Your task to perform on an android device: What's the news in Venezuela? Image 0: 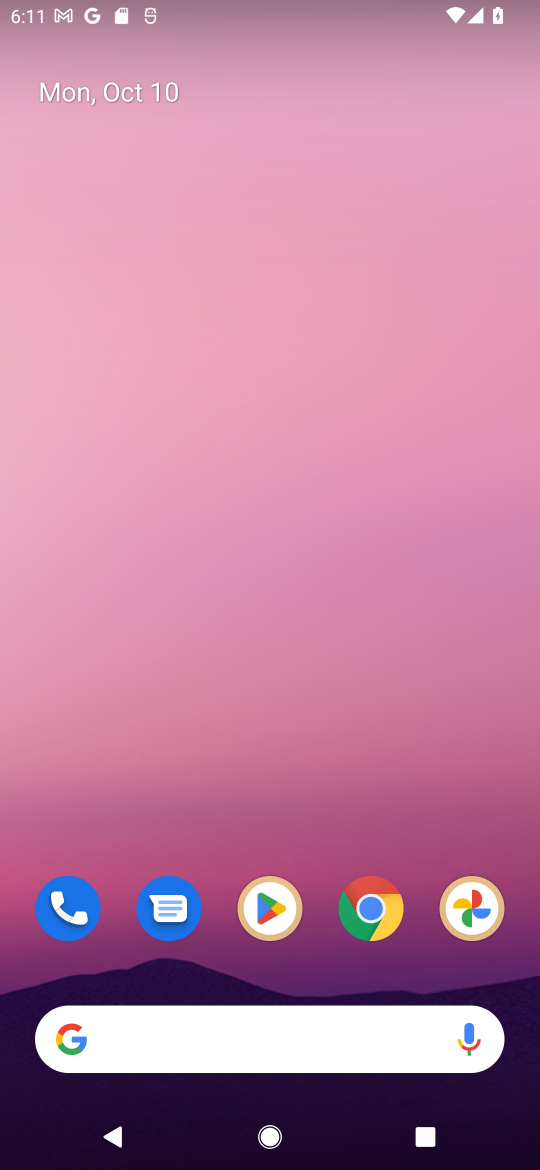
Step 0: drag from (222, 966) to (255, 169)
Your task to perform on an android device: What's the news in Venezuela? Image 1: 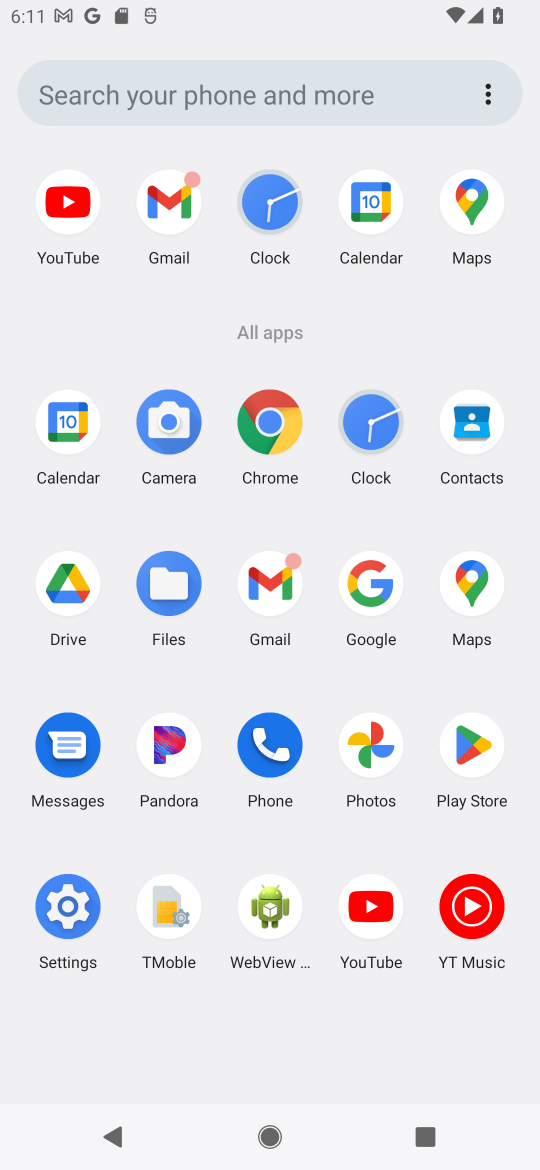
Step 1: click (267, 418)
Your task to perform on an android device: What's the news in Venezuela? Image 2: 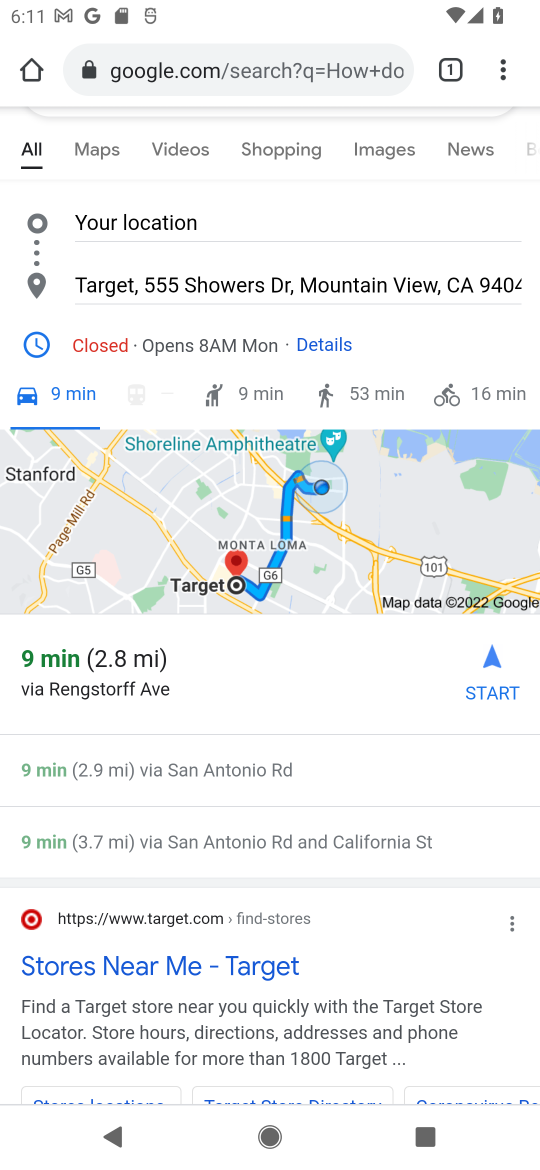
Step 2: click (290, 65)
Your task to perform on an android device: What's the news in Venezuela? Image 3: 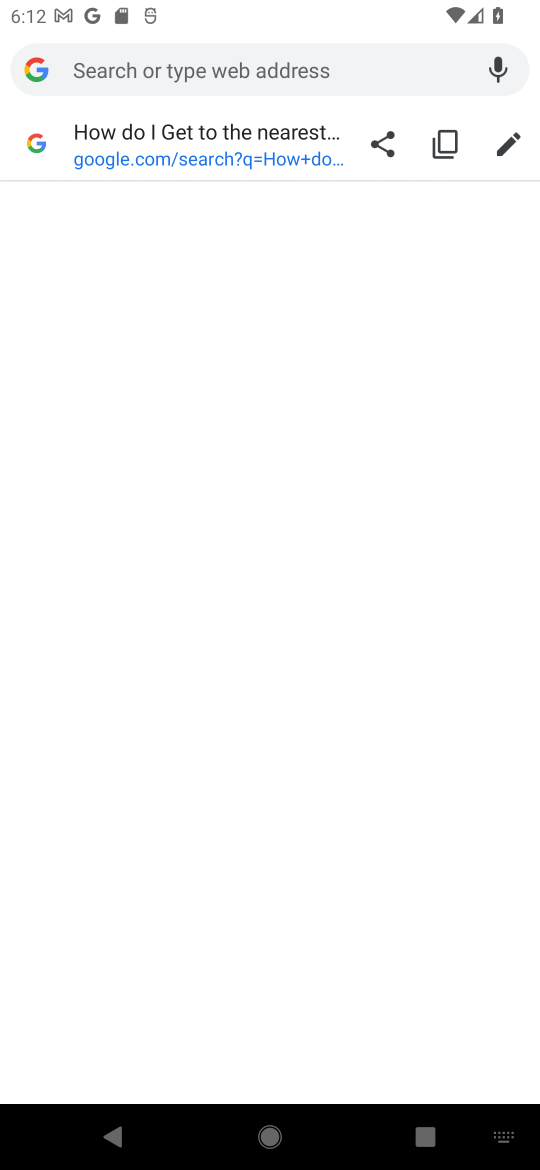
Step 3: type "What's the news in Veneuela?"
Your task to perform on an android device: What's the news in Venezuela? Image 4: 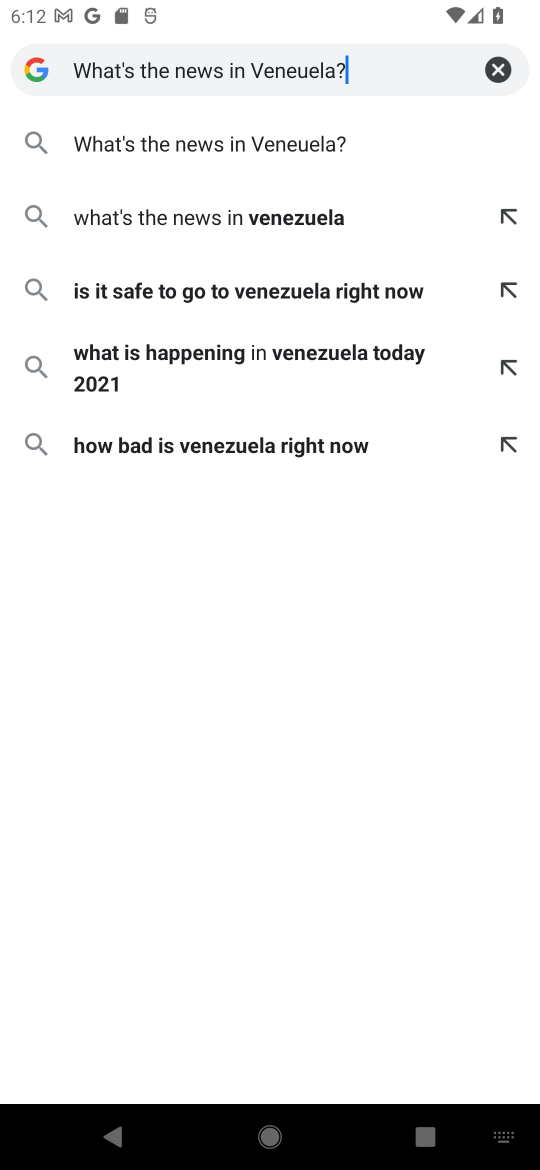
Step 4: press enter
Your task to perform on an android device: What's the news in Venezuela? Image 5: 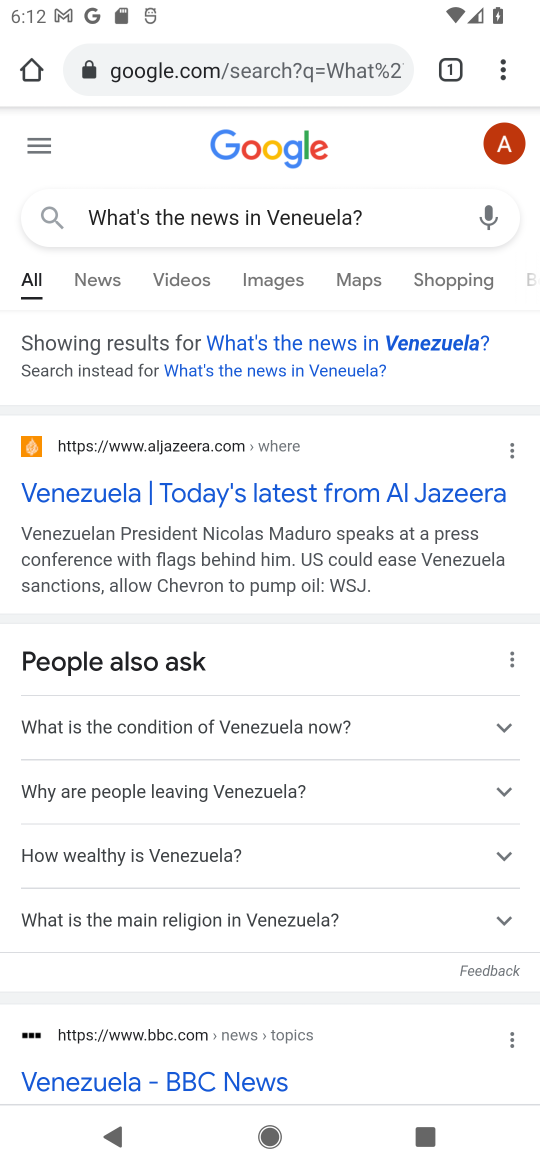
Step 5: click (247, 492)
Your task to perform on an android device: What's the news in Venezuela? Image 6: 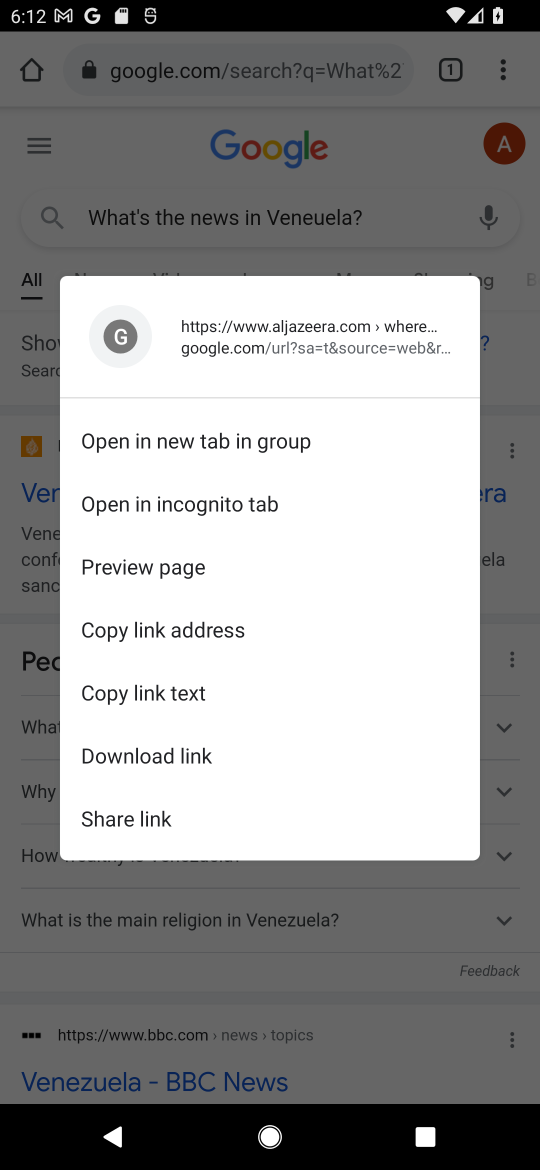
Step 6: click (38, 479)
Your task to perform on an android device: What's the news in Venezuela? Image 7: 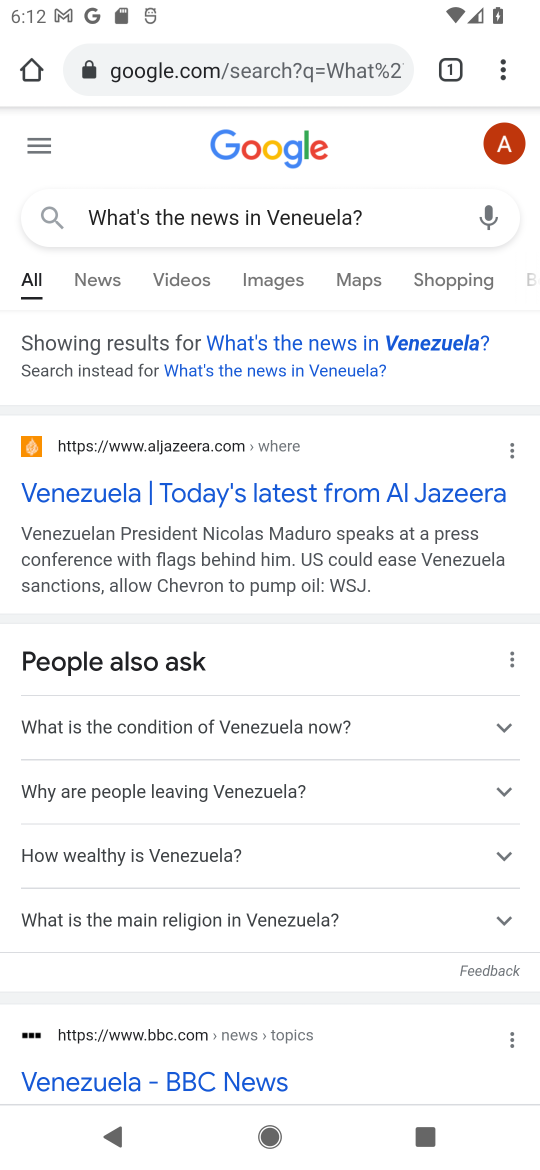
Step 7: click (64, 493)
Your task to perform on an android device: What's the news in Venezuela? Image 8: 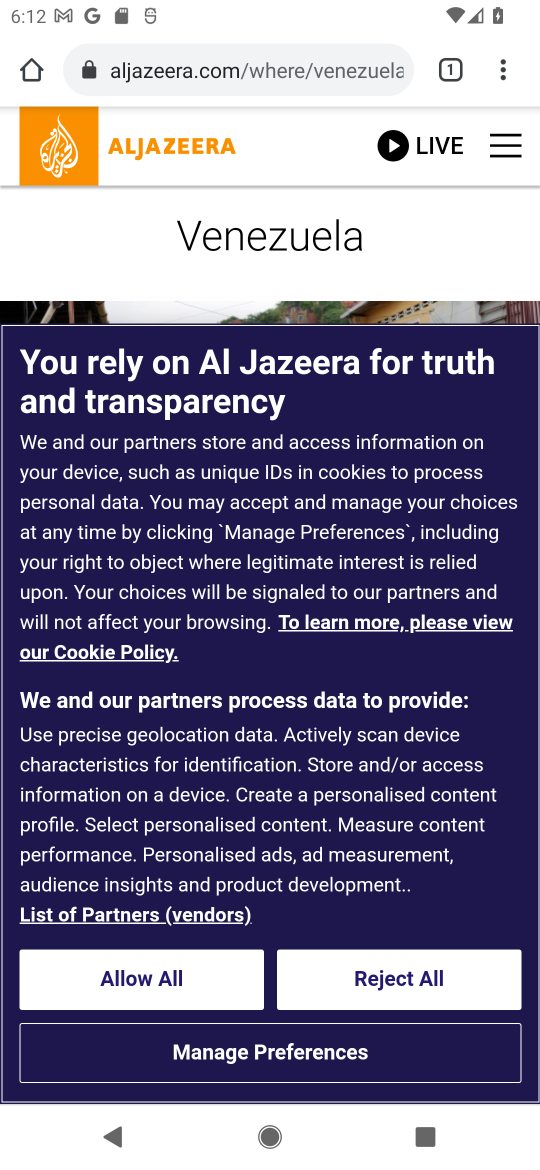
Step 8: task complete